Your task to perform on an android device: Go to Google Image 0: 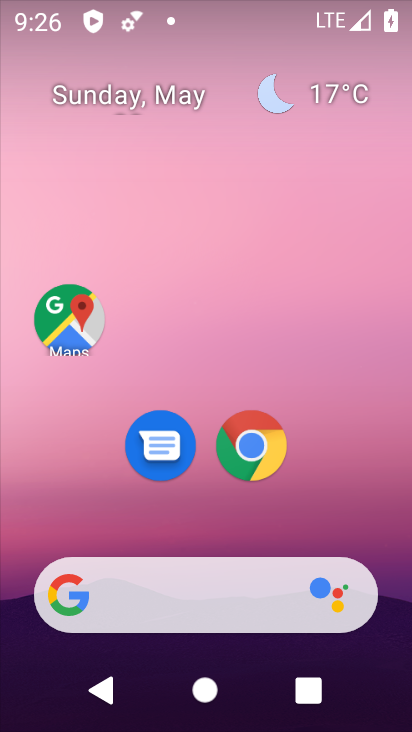
Step 0: drag from (213, 546) to (284, 152)
Your task to perform on an android device: Go to Google Image 1: 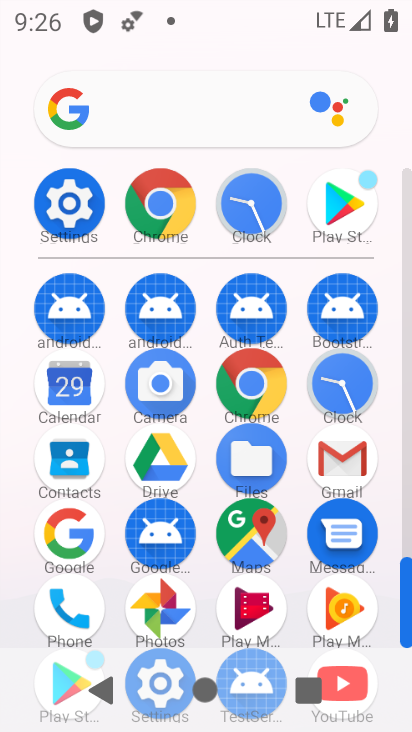
Step 1: click (67, 521)
Your task to perform on an android device: Go to Google Image 2: 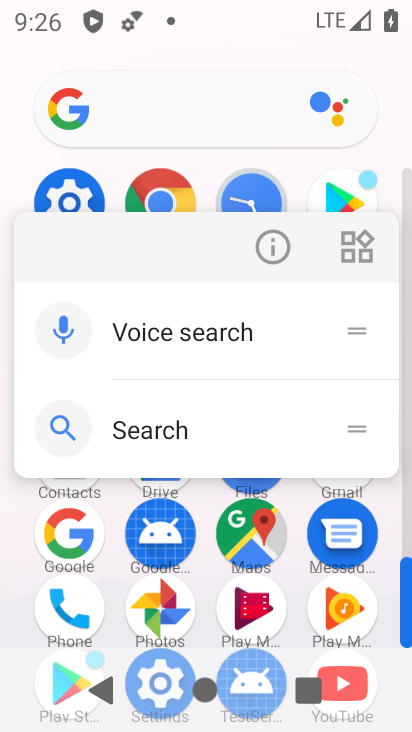
Step 2: click (282, 246)
Your task to perform on an android device: Go to Google Image 3: 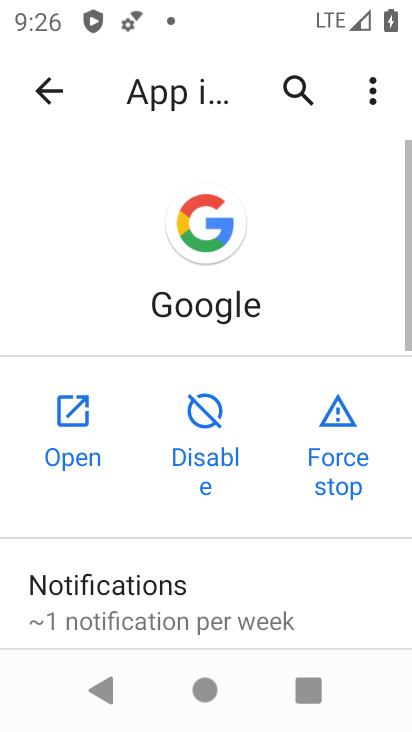
Step 3: click (94, 418)
Your task to perform on an android device: Go to Google Image 4: 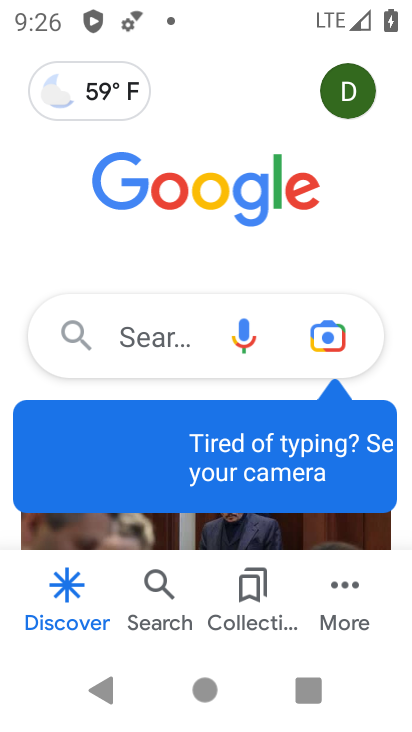
Step 4: task complete